Your task to perform on an android device: open a new tab in the chrome app Image 0: 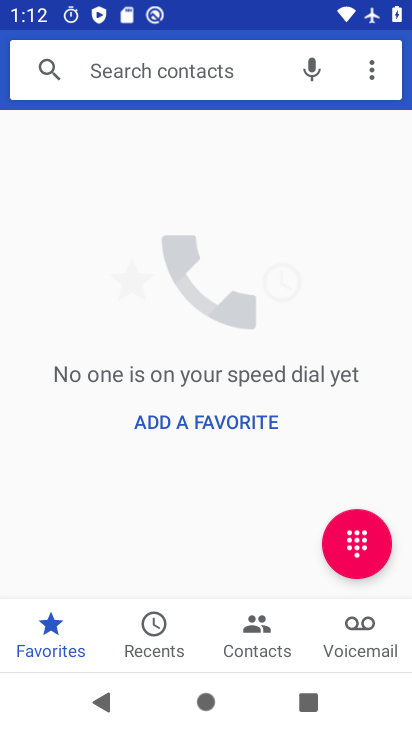
Step 0: press home button
Your task to perform on an android device: open a new tab in the chrome app Image 1: 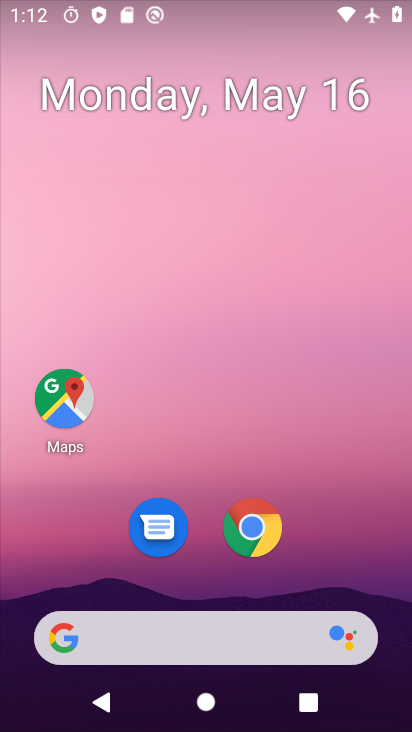
Step 1: click (240, 543)
Your task to perform on an android device: open a new tab in the chrome app Image 2: 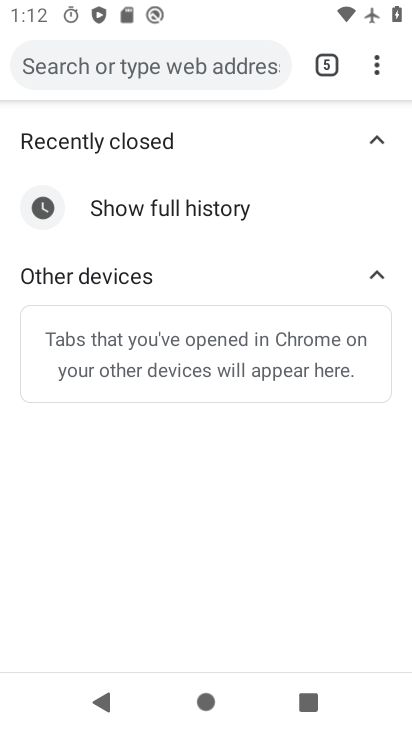
Step 2: task complete